Your task to perform on an android device: open the mobile data screen to see how much data has been used Image 0: 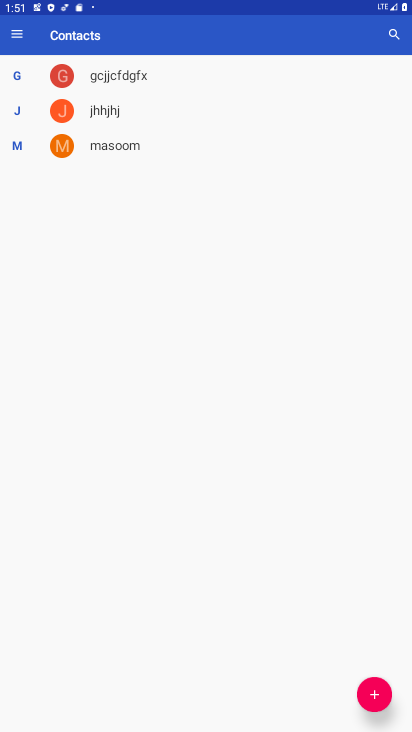
Step 0: press home button
Your task to perform on an android device: open the mobile data screen to see how much data has been used Image 1: 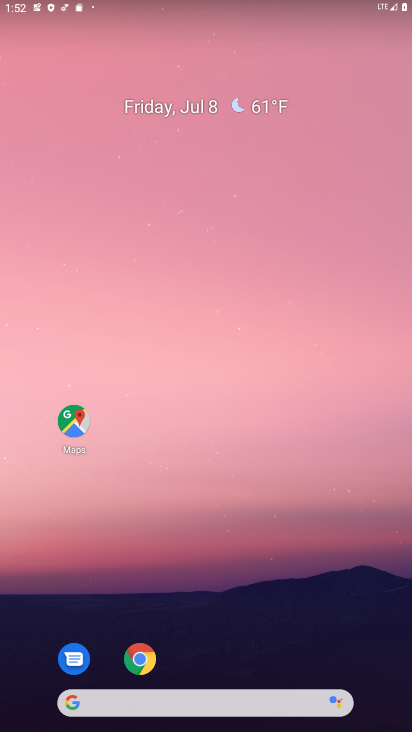
Step 1: drag from (214, 679) to (138, 56)
Your task to perform on an android device: open the mobile data screen to see how much data has been used Image 2: 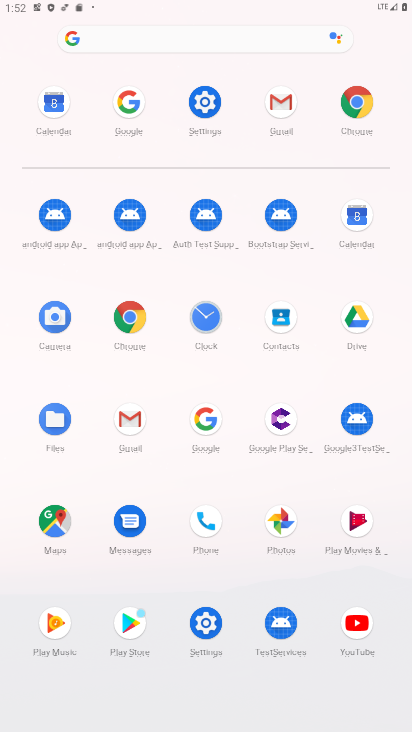
Step 2: click (198, 90)
Your task to perform on an android device: open the mobile data screen to see how much data has been used Image 3: 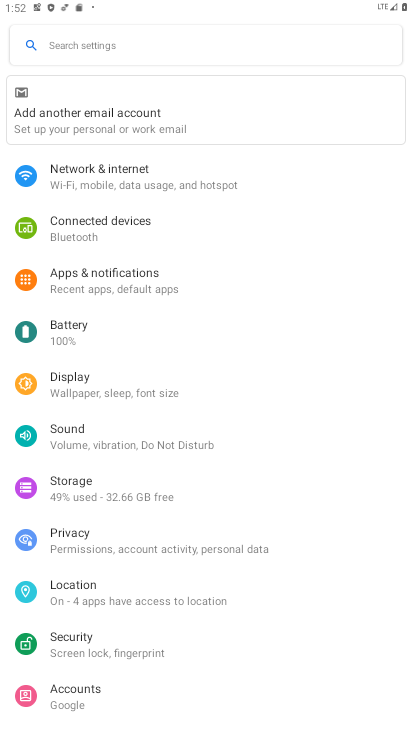
Step 3: click (133, 181)
Your task to perform on an android device: open the mobile data screen to see how much data has been used Image 4: 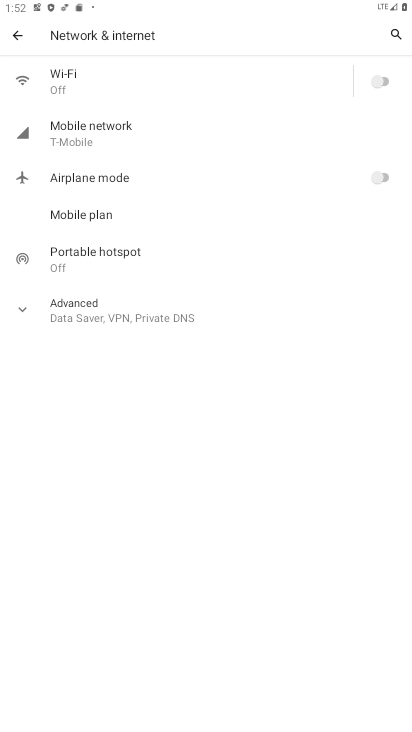
Step 4: click (109, 143)
Your task to perform on an android device: open the mobile data screen to see how much data has been used Image 5: 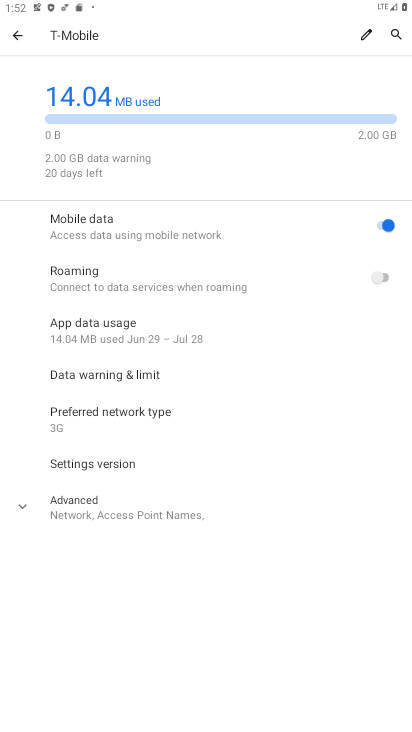
Step 5: task complete